Your task to perform on an android device: Go to network settings Image 0: 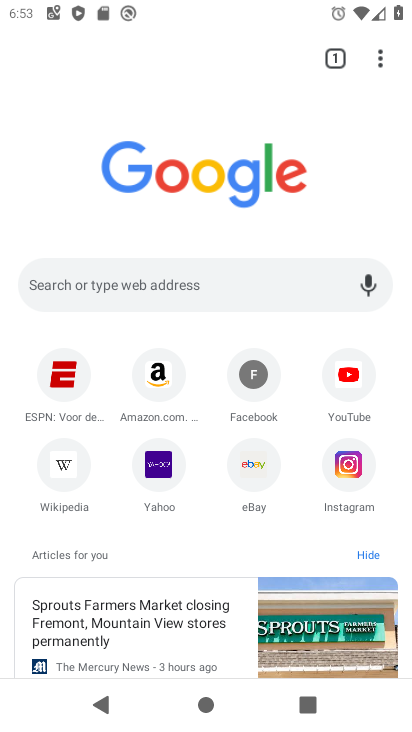
Step 0: press home button
Your task to perform on an android device: Go to network settings Image 1: 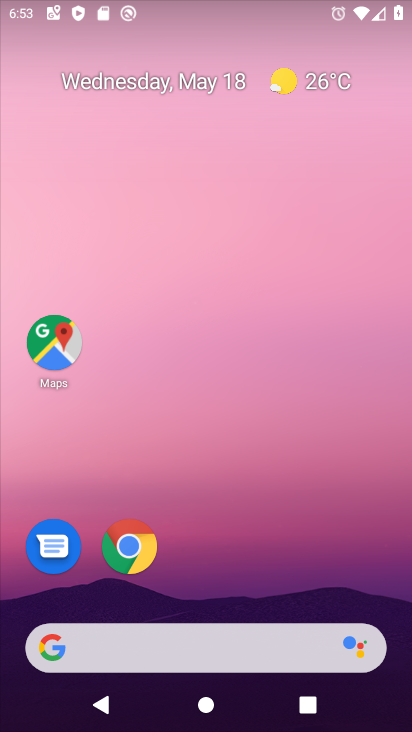
Step 1: drag from (397, 617) to (275, 46)
Your task to perform on an android device: Go to network settings Image 2: 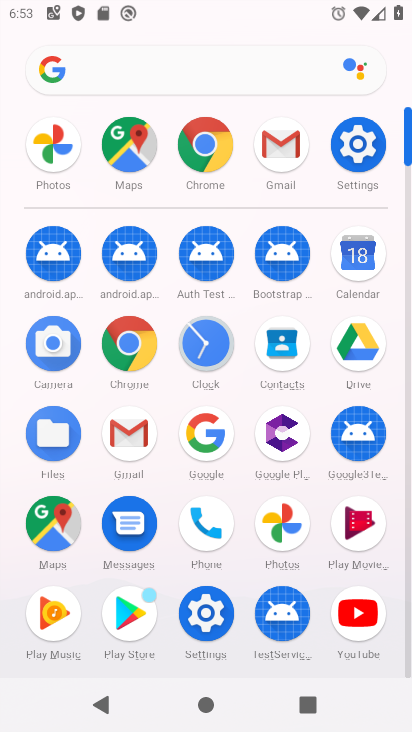
Step 2: click (345, 151)
Your task to perform on an android device: Go to network settings Image 3: 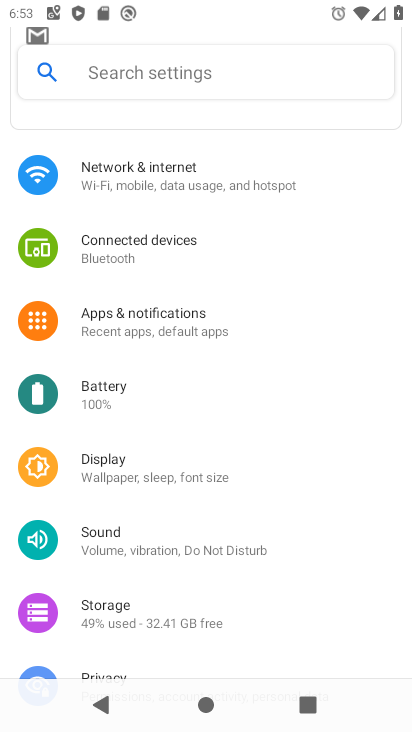
Step 3: drag from (239, 147) to (224, 646)
Your task to perform on an android device: Go to network settings Image 4: 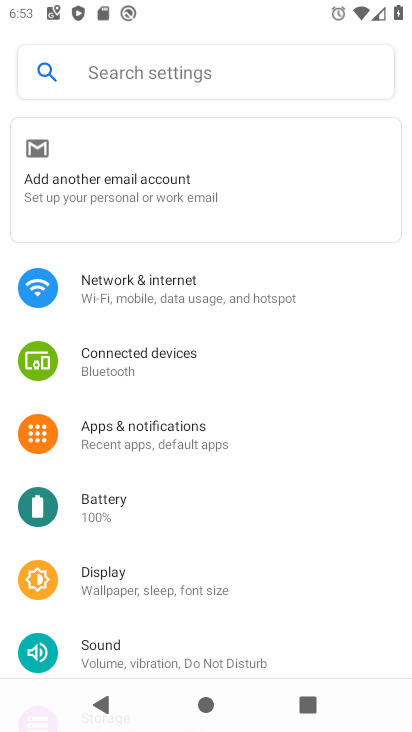
Step 4: click (182, 308)
Your task to perform on an android device: Go to network settings Image 5: 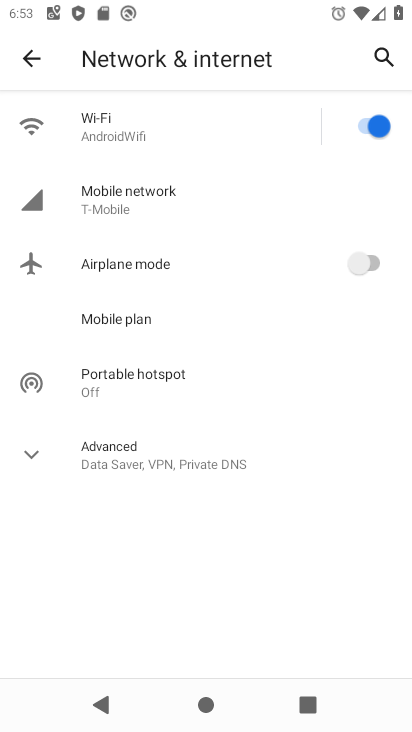
Step 5: task complete